Your task to perform on an android device: snooze an email in the gmail app Image 0: 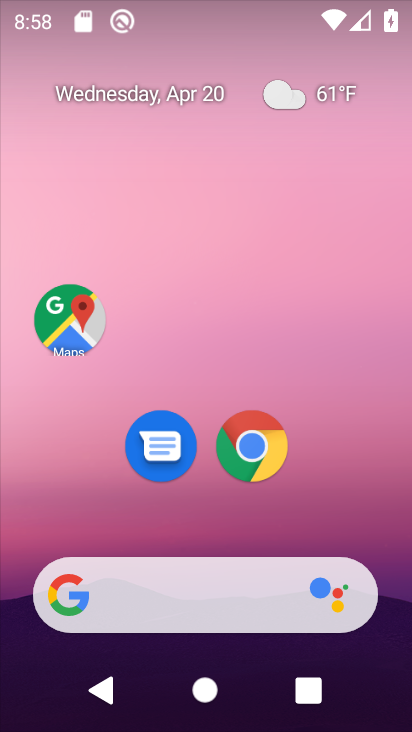
Step 0: drag from (370, 510) to (366, 161)
Your task to perform on an android device: snooze an email in the gmail app Image 1: 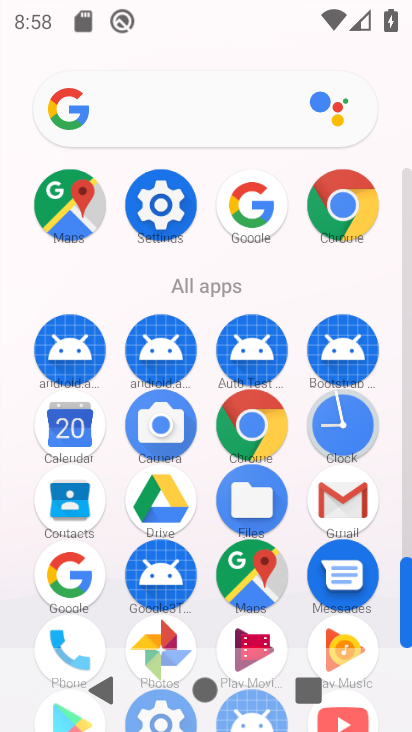
Step 1: click (346, 491)
Your task to perform on an android device: snooze an email in the gmail app Image 2: 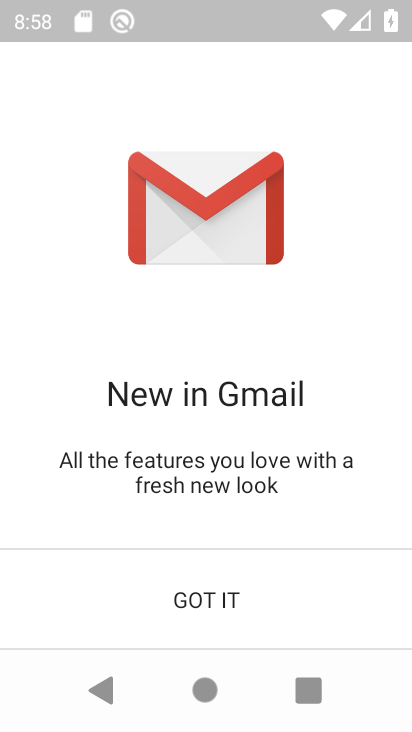
Step 2: click (193, 601)
Your task to perform on an android device: snooze an email in the gmail app Image 3: 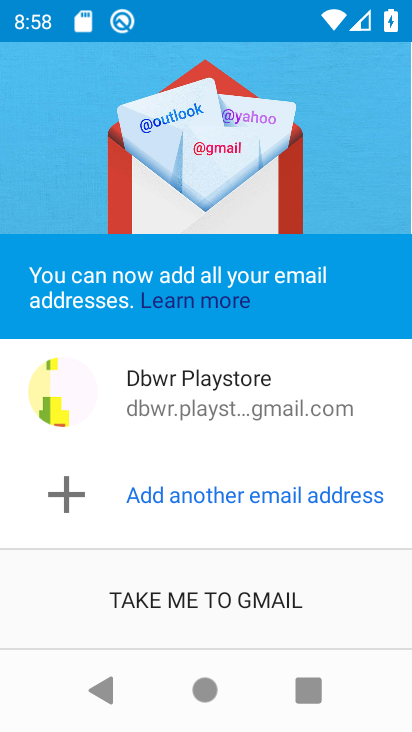
Step 3: click (192, 600)
Your task to perform on an android device: snooze an email in the gmail app Image 4: 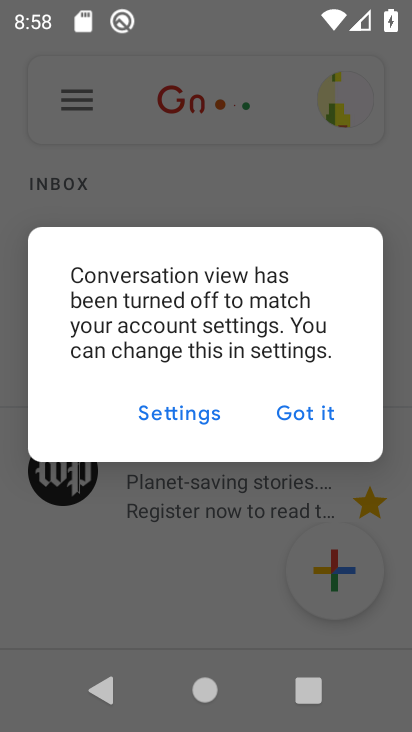
Step 4: click (279, 416)
Your task to perform on an android device: snooze an email in the gmail app Image 5: 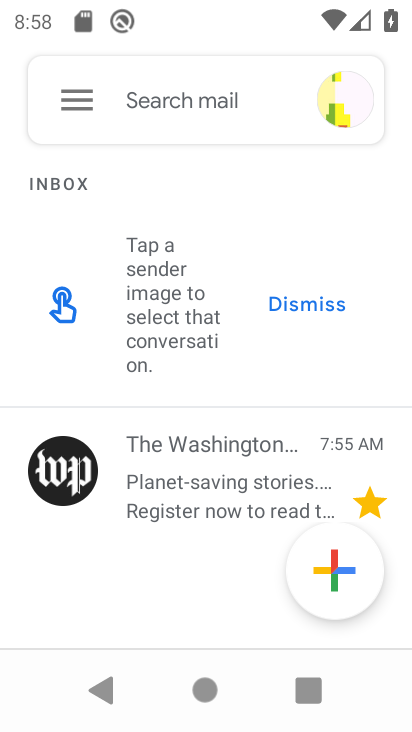
Step 5: click (204, 477)
Your task to perform on an android device: snooze an email in the gmail app Image 6: 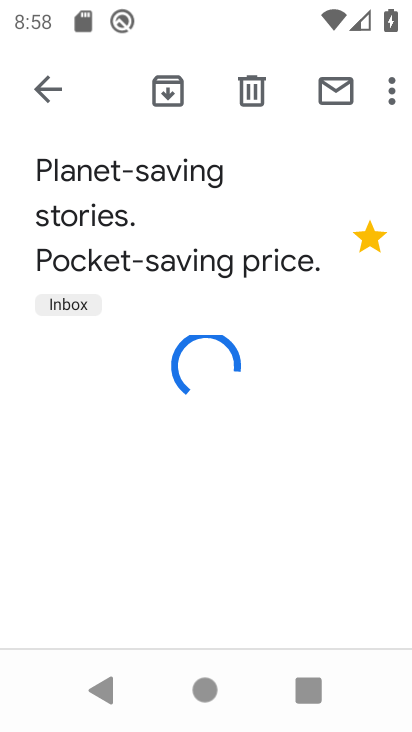
Step 6: click (386, 101)
Your task to perform on an android device: snooze an email in the gmail app Image 7: 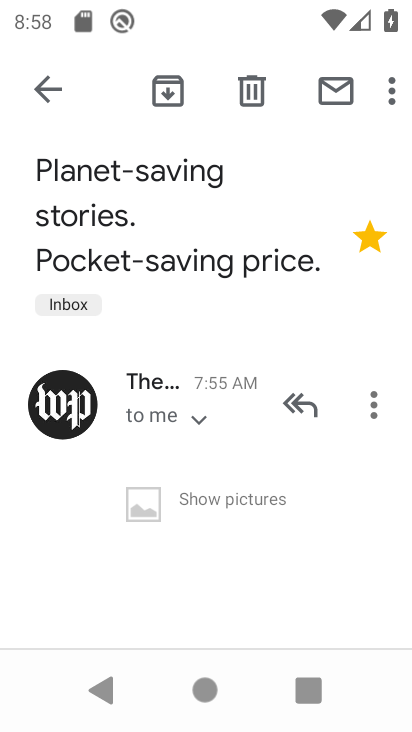
Step 7: click (394, 91)
Your task to perform on an android device: snooze an email in the gmail app Image 8: 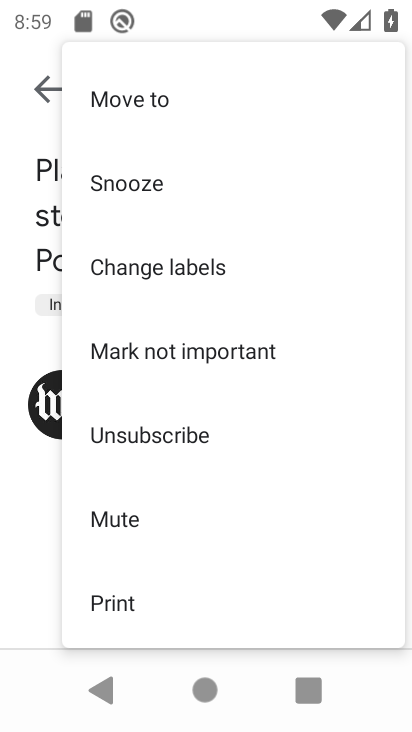
Step 8: click (159, 183)
Your task to perform on an android device: snooze an email in the gmail app Image 9: 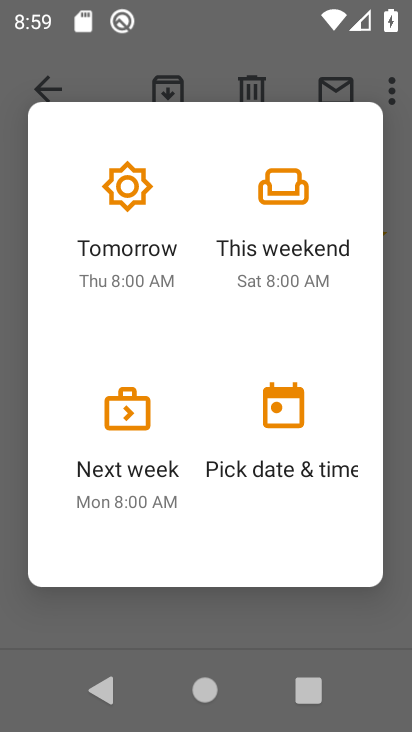
Step 9: click (149, 213)
Your task to perform on an android device: snooze an email in the gmail app Image 10: 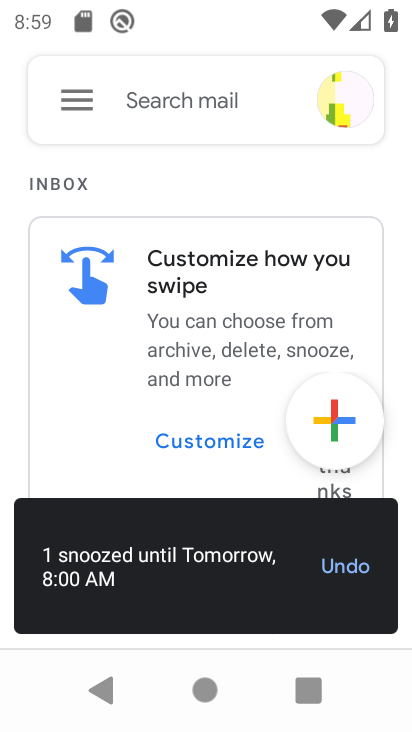
Step 10: task complete